Your task to perform on an android device: Open the map Image 0: 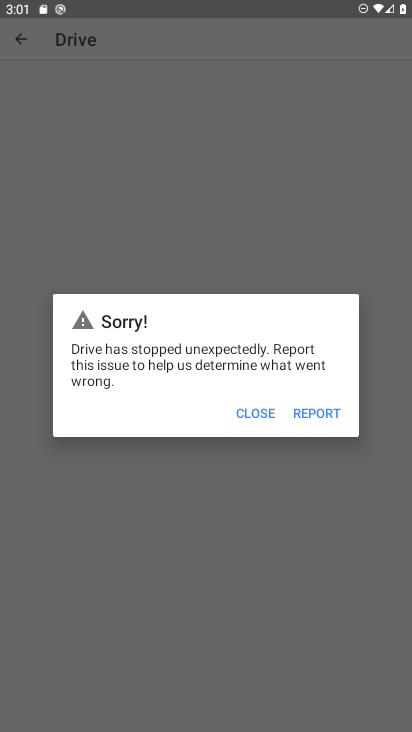
Step 0: press home button
Your task to perform on an android device: Open the map Image 1: 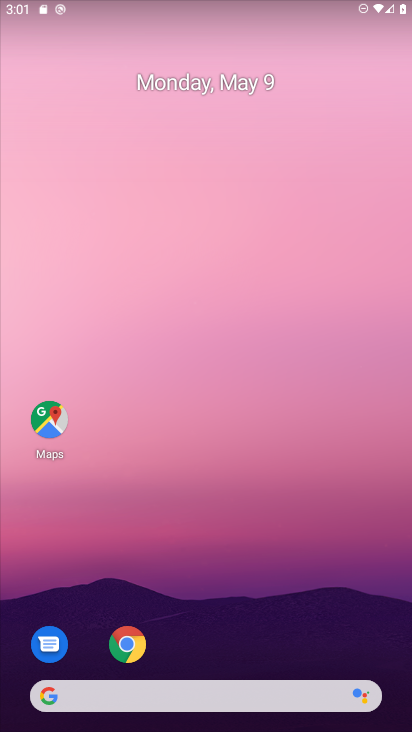
Step 1: click (47, 423)
Your task to perform on an android device: Open the map Image 2: 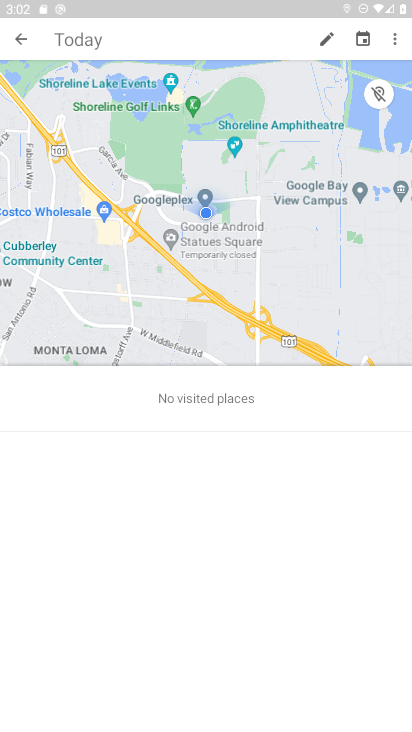
Step 2: task complete